Your task to perform on an android device: turn smart compose on in the gmail app Image 0: 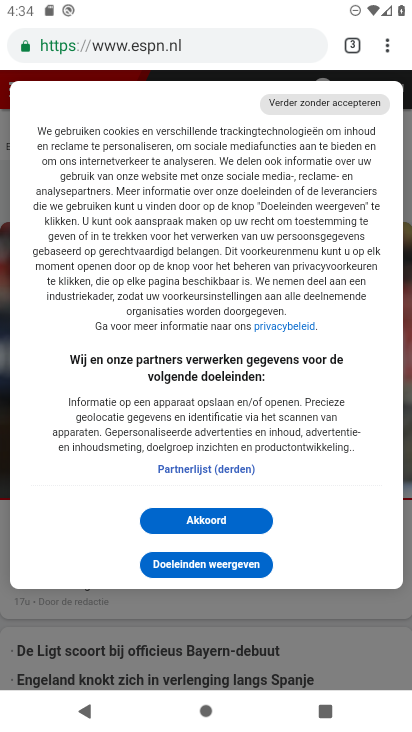
Step 0: press home button
Your task to perform on an android device: turn smart compose on in the gmail app Image 1: 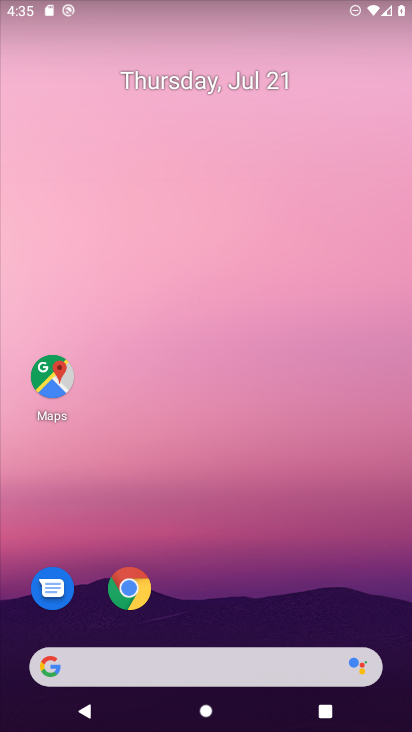
Step 1: drag from (272, 631) to (261, 182)
Your task to perform on an android device: turn smart compose on in the gmail app Image 2: 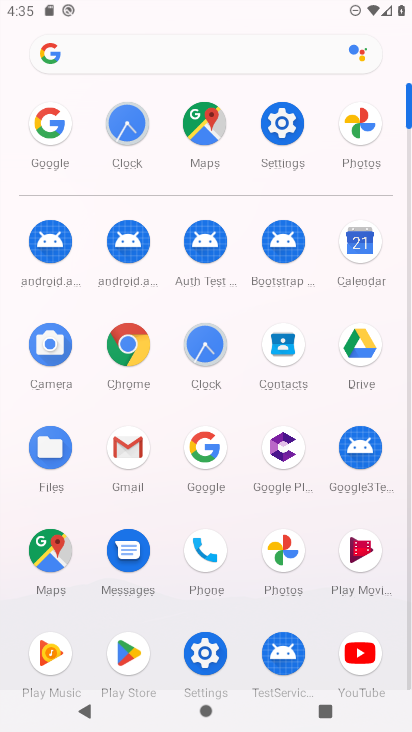
Step 2: click (127, 462)
Your task to perform on an android device: turn smart compose on in the gmail app Image 3: 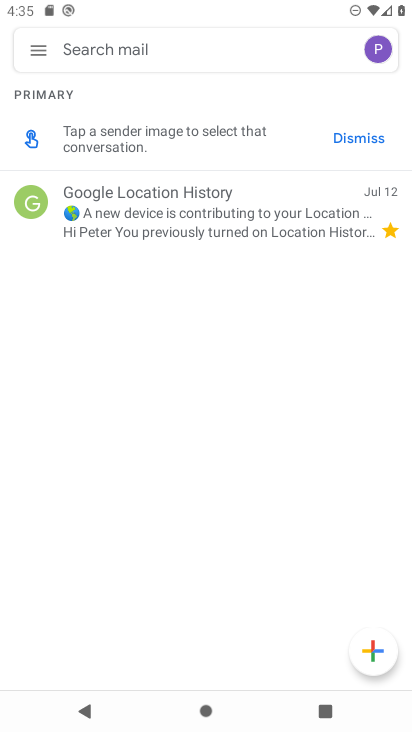
Step 3: click (36, 53)
Your task to perform on an android device: turn smart compose on in the gmail app Image 4: 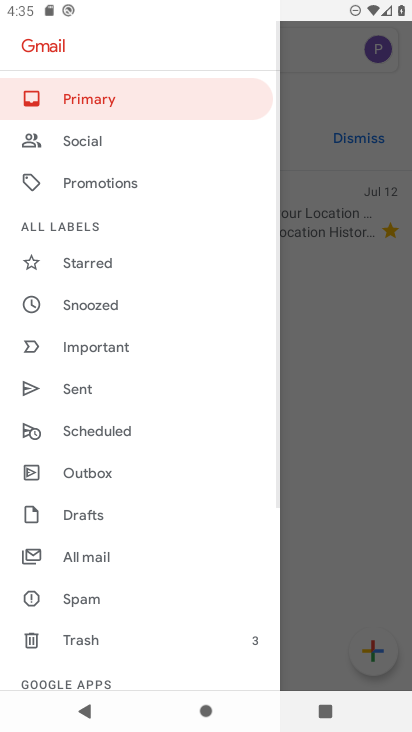
Step 4: drag from (97, 454) to (144, 147)
Your task to perform on an android device: turn smart compose on in the gmail app Image 5: 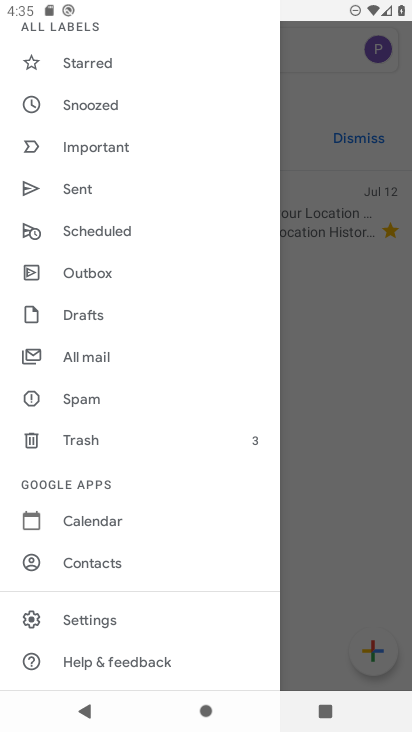
Step 5: click (100, 622)
Your task to perform on an android device: turn smart compose on in the gmail app Image 6: 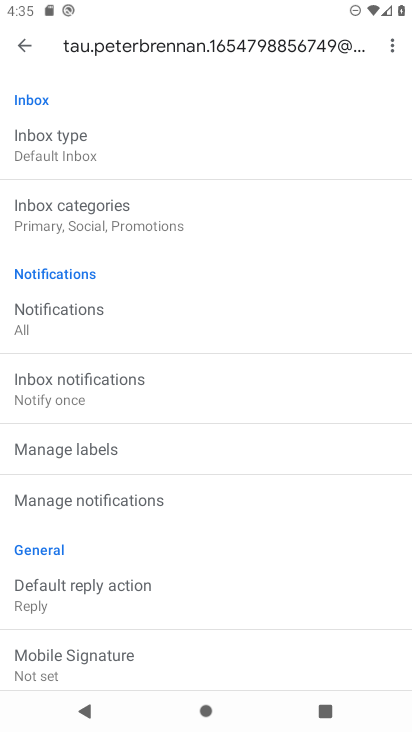
Step 6: task complete